Your task to perform on an android device: Open the web browser Image 0: 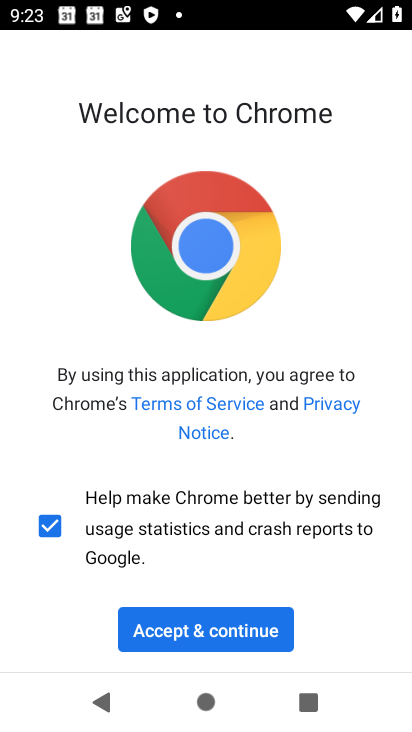
Step 0: click (223, 636)
Your task to perform on an android device: Open the web browser Image 1: 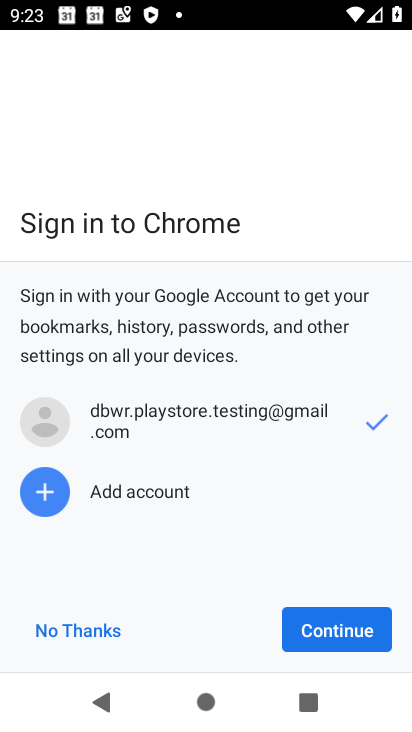
Step 1: click (328, 640)
Your task to perform on an android device: Open the web browser Image 2: 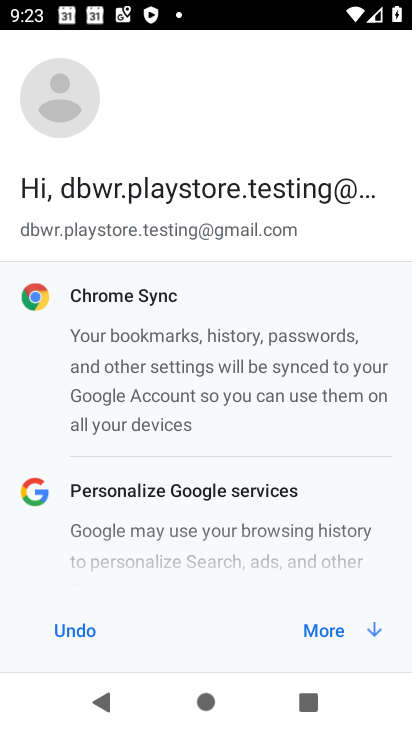
Step 2: click (325, 631)
Your task to perform on an android device: Open the web browser Image 3: 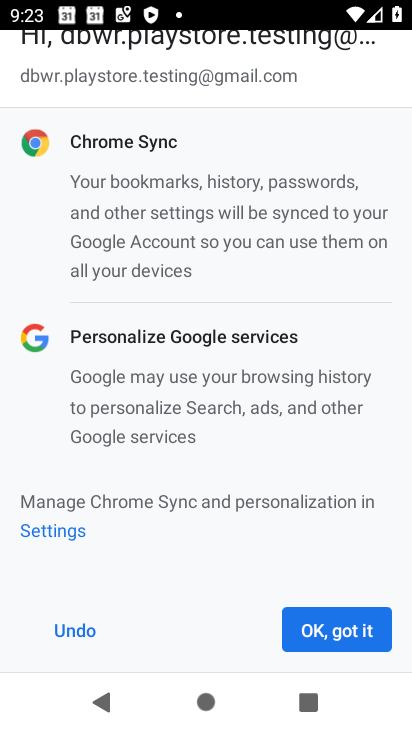
Step 3: click (325, 631)
Your task to perform on an android device: Open the web browser Image 4: 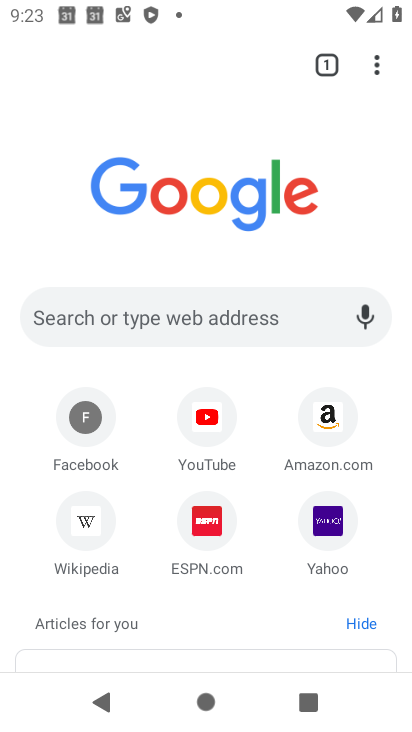
Step 4: task complete